Your task to perform on an android device: toggle improve location accuracy Image 0: 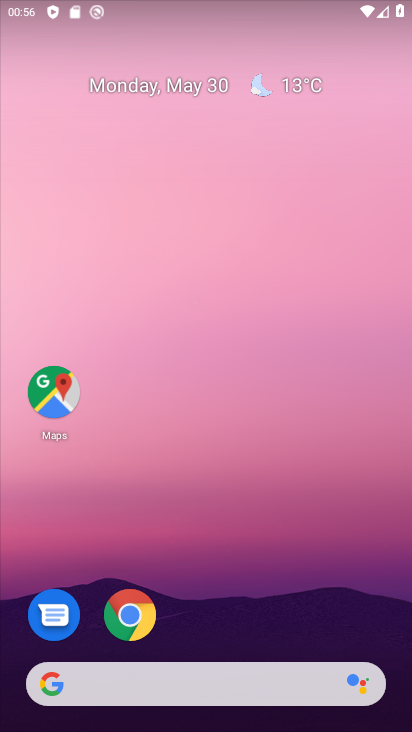
Step 0: drag from (190, 647) to (157, 24)
Your task to perform on an android device: toggle improve location accuracy Image 1: 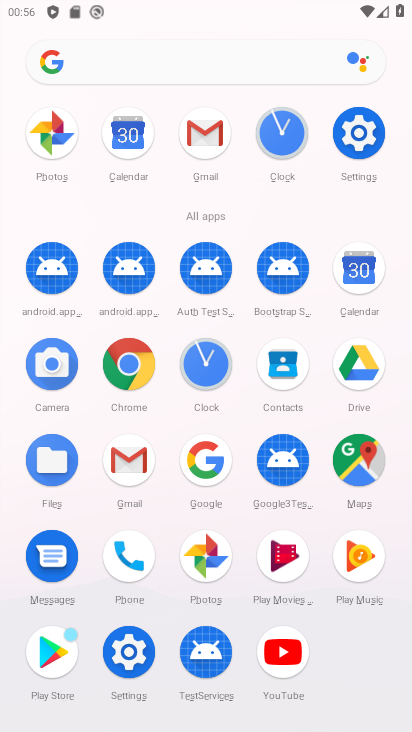
Step 1: click (348, 138)
Your task to perform on an android device: toggle improve location accuracy Image 2: 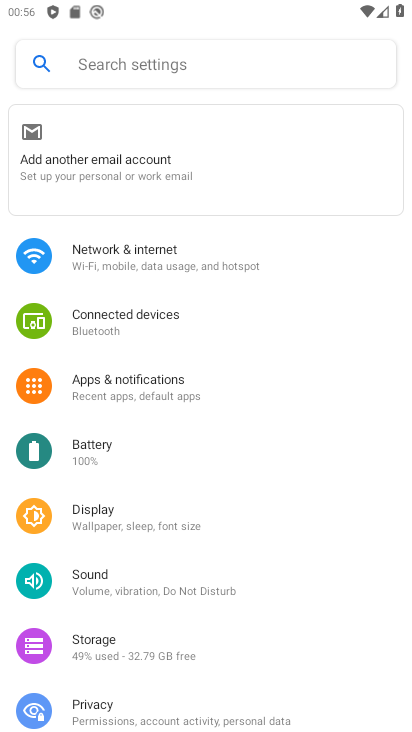
Step 2: drag from (116, 714) to (104, 336)
Your task to perform on an android device: toggle improve location accuracy Image 3: 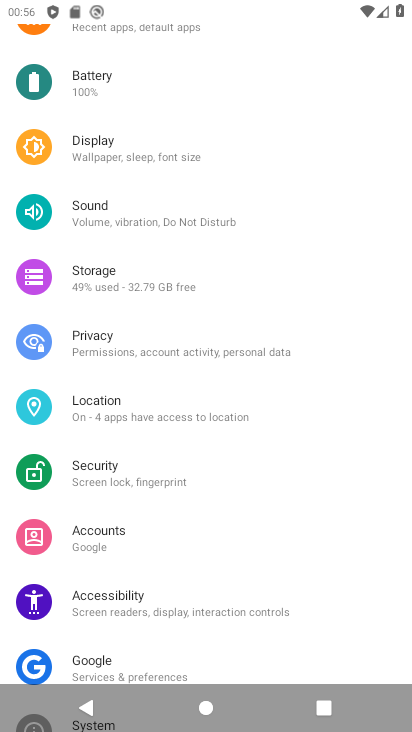
Step 3: click (106, 428)
Your task to perform on an android device: toggle improve location accuracy Image 4: 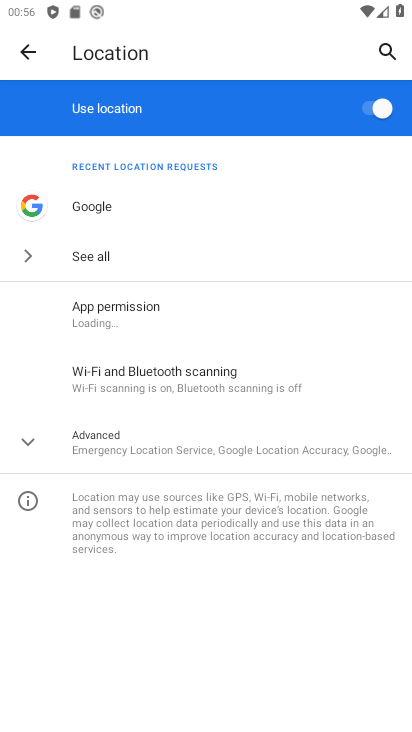
Step 4: click (114, 426)
Your task to perform on an android device: toggle improve location accuracy Image 5: 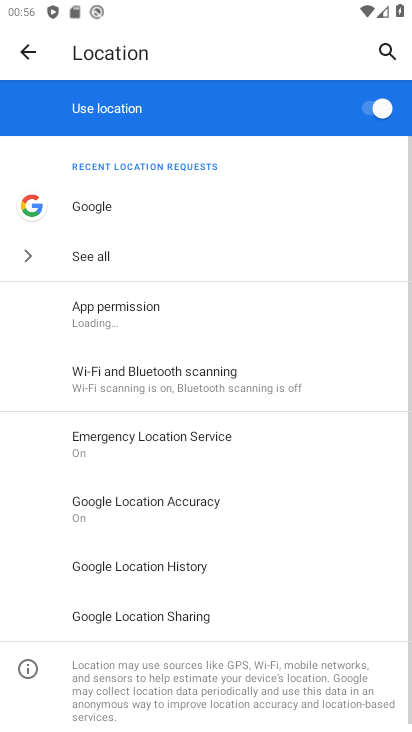
Step 5: click (170, 498)
Your task to perform on an android device: toggle improve location accuracy Image 6: 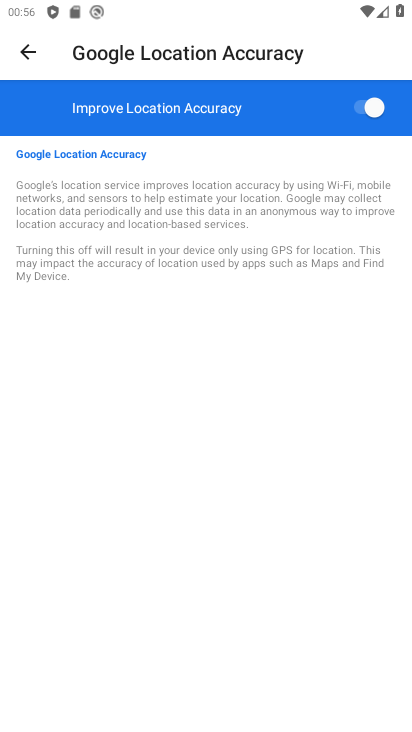
Step 6: click (376, 98)
Your task to perform on an android device: toggle improve location accuracy Image 7: 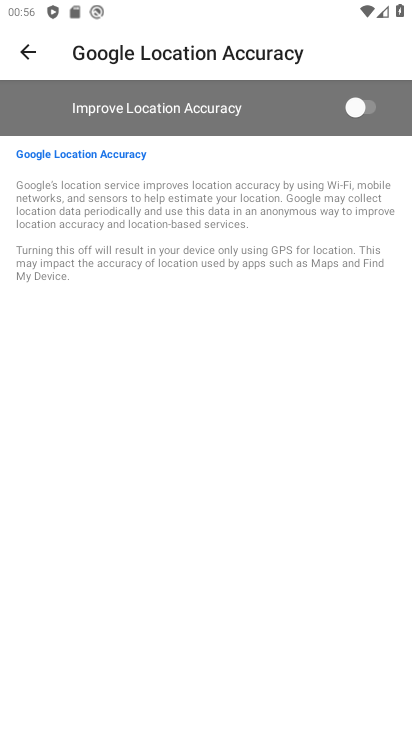
Step 7: task complete